Your task to perform on an android device: turn notification dots off Image 0: 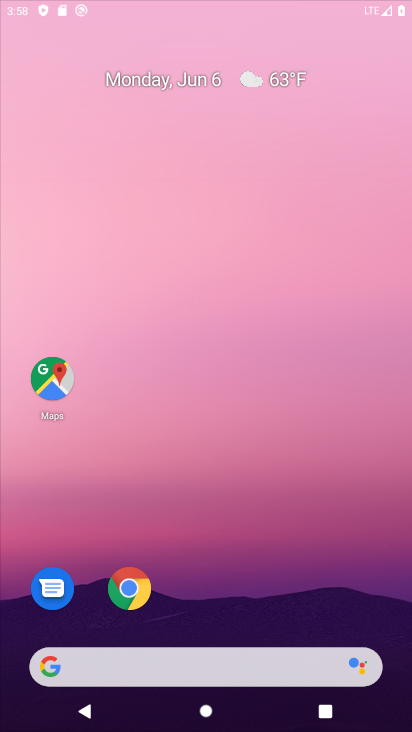
Step 0: click (189, 186)
Your task to perform on an android device: turn notification dots off Image 1: 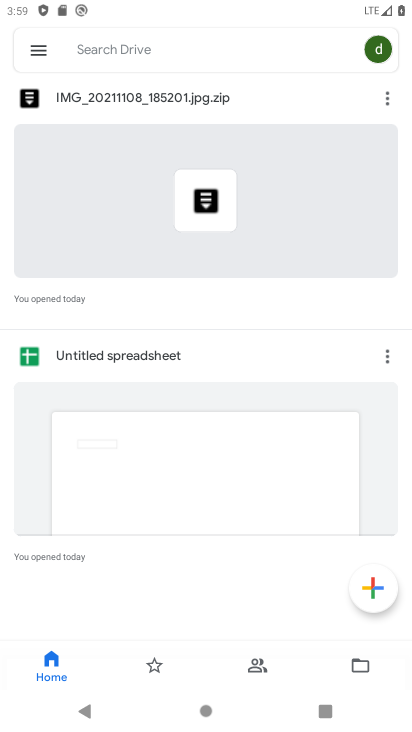
Step 1: press back button
Your task to perform on an android device: turn notification dots off Image 2: 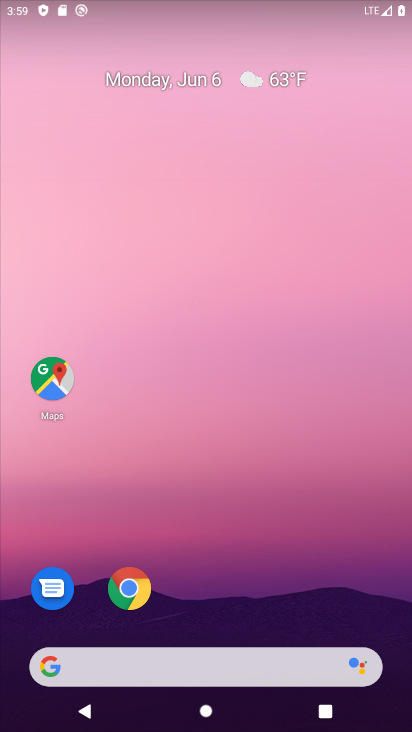
Step 2: drag from (307, 628) to (246, 231)
Your task to perform on an android device: turn notification dots off Image 3: 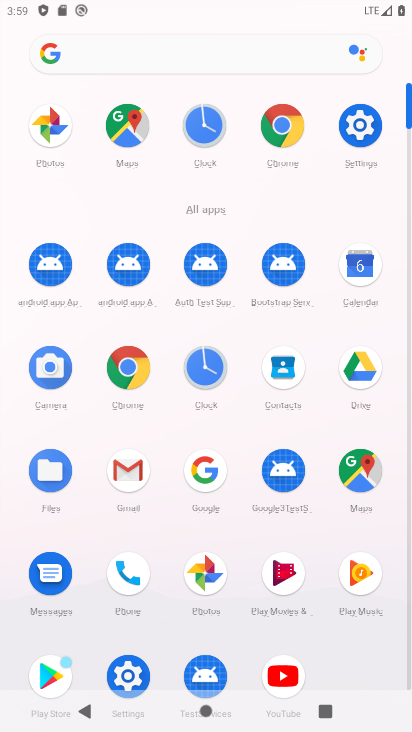
Step 3: click (369, 134)
Your task to perform on an android device: turn notification dots off Image 4: 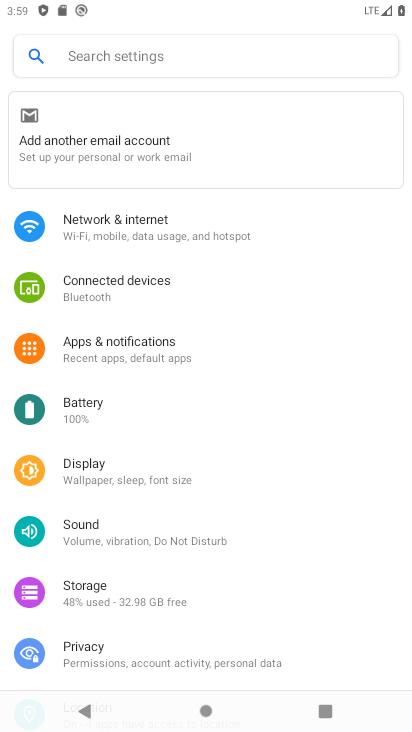
Step 4: click (130, 338)
Your task to perform on an android device: turn notification dots off Image 5: 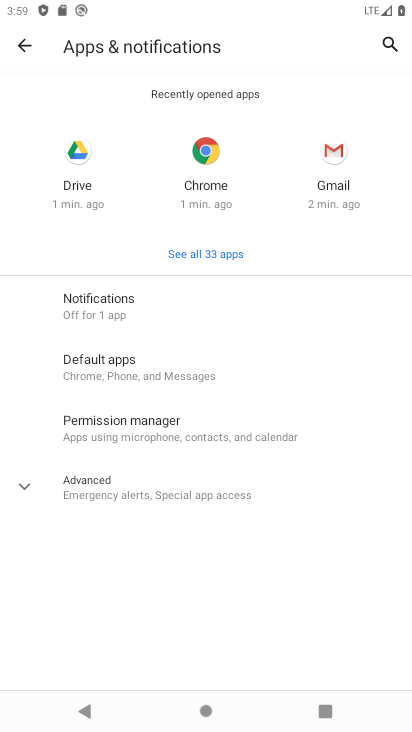
Step 5: click (80, 309)
Your task to perform on an android device: turn notification dots off Image 6: 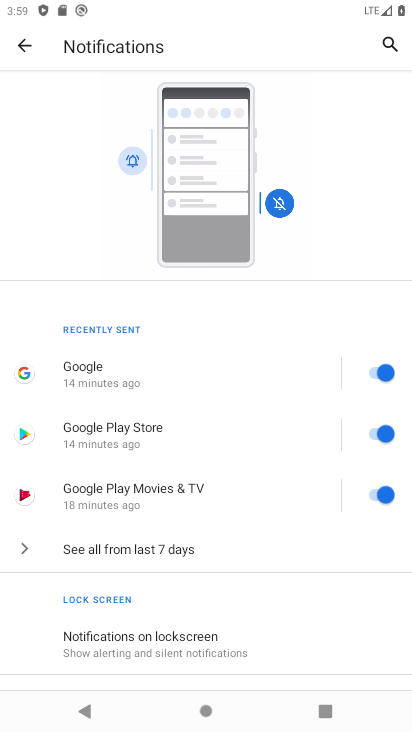
Step 6: click (88, 308)
Your task to perform on an android device: turn notification dots off Image 7: 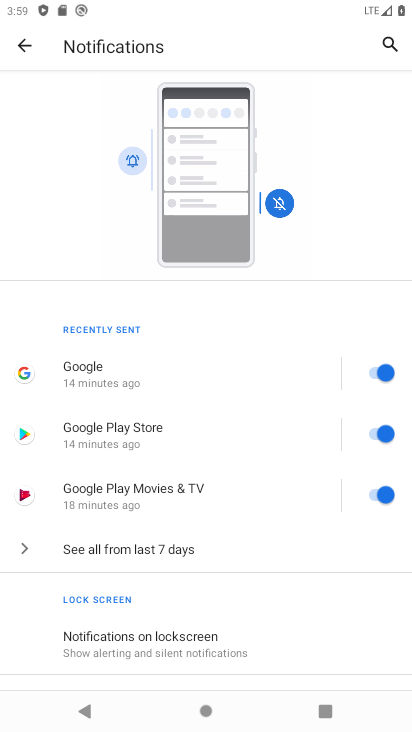
Step 7: drag from (168, 419) to (135, 222)
Your task to perform on an android device: turn notification dots off Image 8: 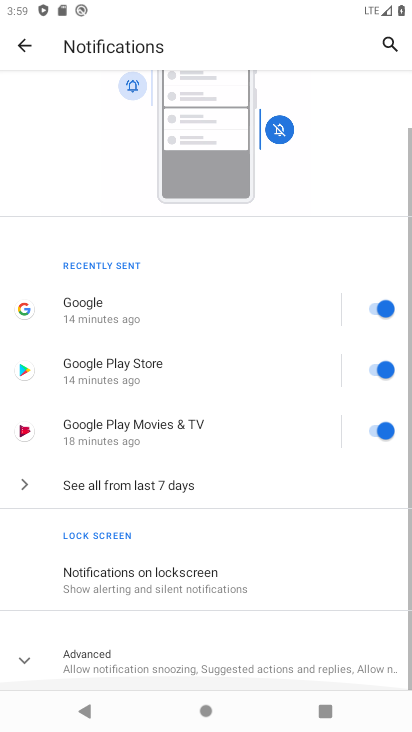
Step 8: drag from (174, 131) to (236, 319)
Your task to perform on an android device: turn notification dots off Image 9: 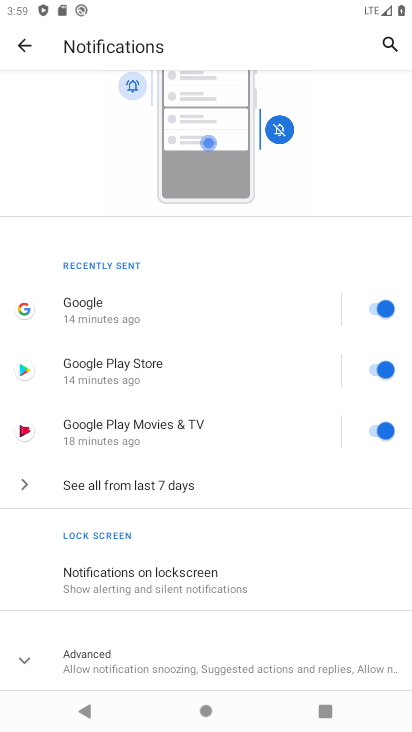
Step 9: click (92, 652)
Your task to perform on an android device: turn notification dots off Image 10: 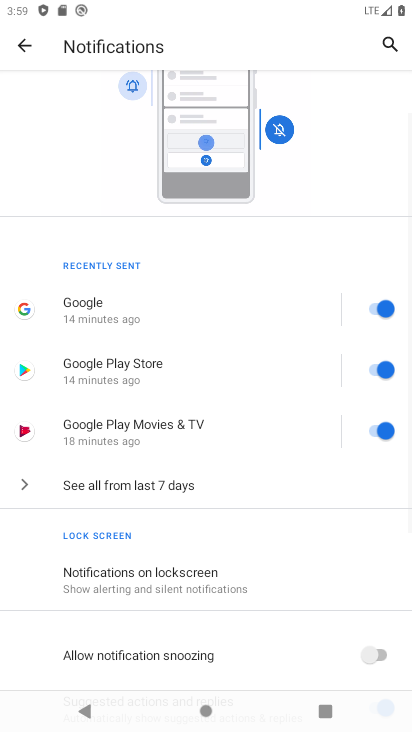
Step 10: drag from (173, 642) to (111, 192)
Your task to perform on an android device: turn notification dots off Image 11: 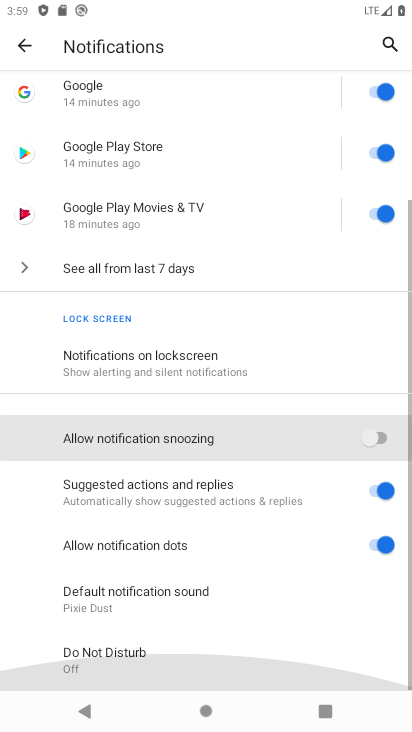
Step 11: drag from (203, 524) to (150, 225)
Your task to perform on an android device: turn notification dots off Image 12: 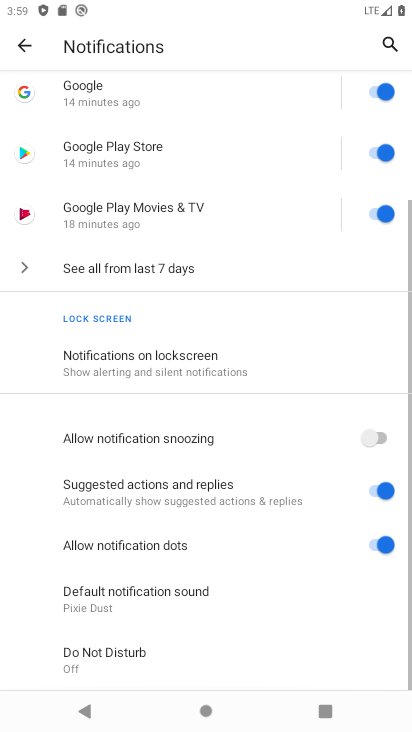
Step 12: drag from (214, 437) to (214, 155)
Your task to perform on an android device: turn notification dots off Image 13: 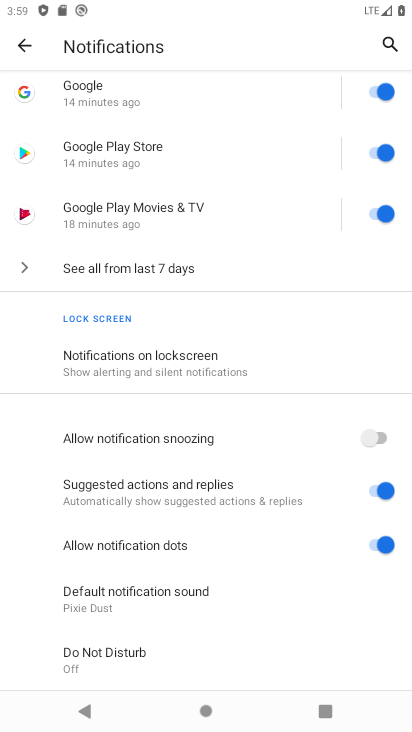
Step 13: click (385, 539)
Your task to perform on an android device: turn notification dots off Image 14: 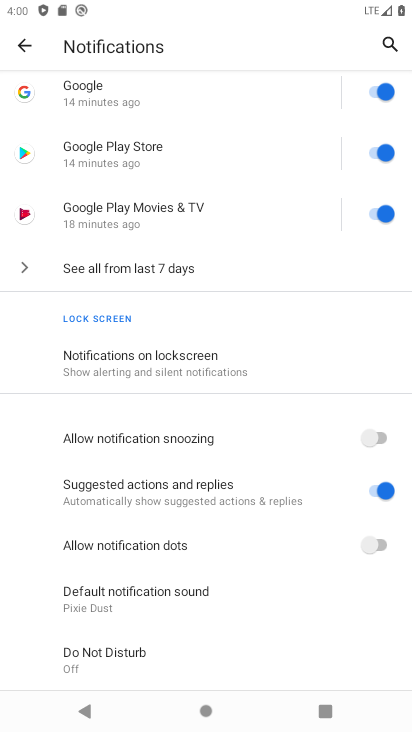
Step 14: task complete